Your task to perform on an android device: turn off improve location accuracy Image 0: 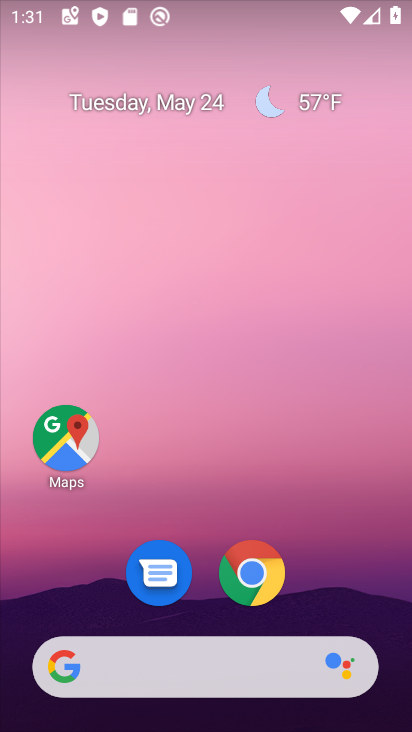
Step 0: drag from (387, 563) to (331, 278)
Your task to perform on an android device: turn off improve location accuracy Image 1: 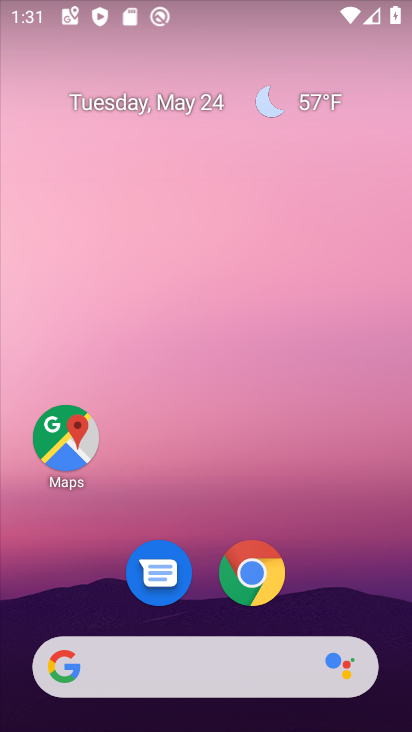
Step 1: drag from (351, 612) to (336, 225)
Your task to perform on an android device: turn off improve location accuracy Image 2: 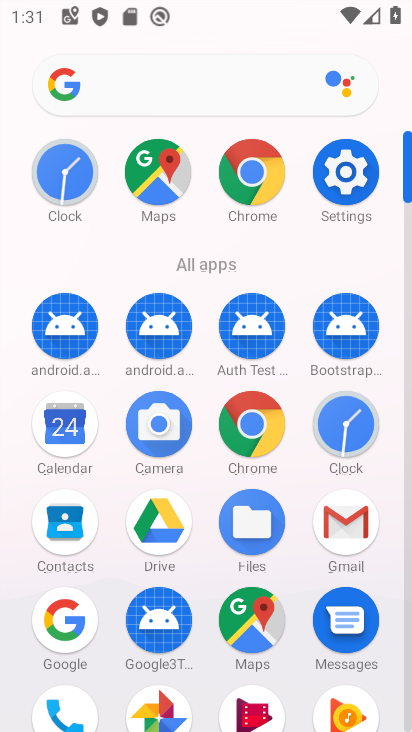
Step 2: click (359, 196)
Your task to perform on an android device: turn off improve location accuracy Image 3: 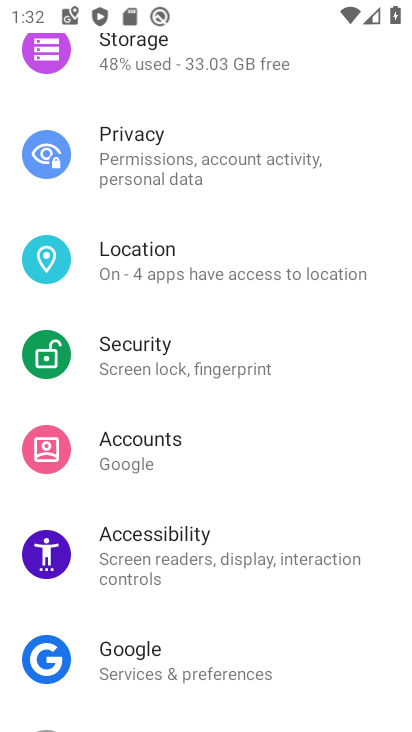
Step 3: drag from (182, 183) to (191, 357)
Your task to perform on an android device: turn off improve location accuracy Image 4: 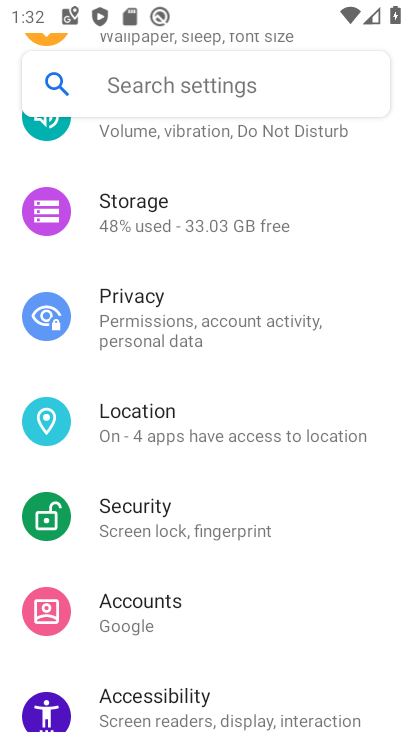
Step 4: click (199, 410)
Your task to perform on an android device: turn off improve location accuracy Image 5: 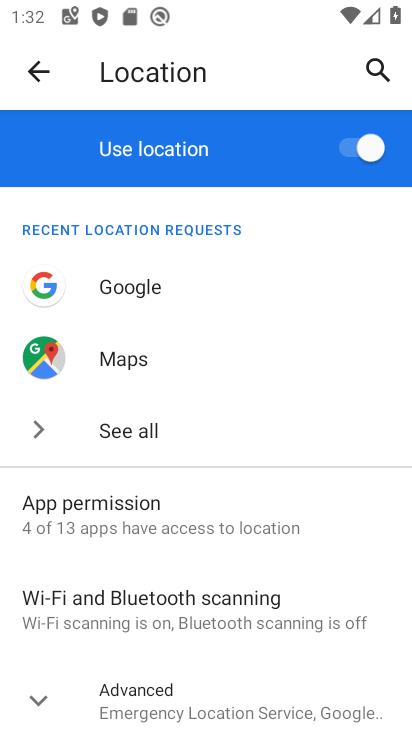
Step 5: click (199, 410)
Your task to perform on an android device: turn off improve location accuracy Image 6: 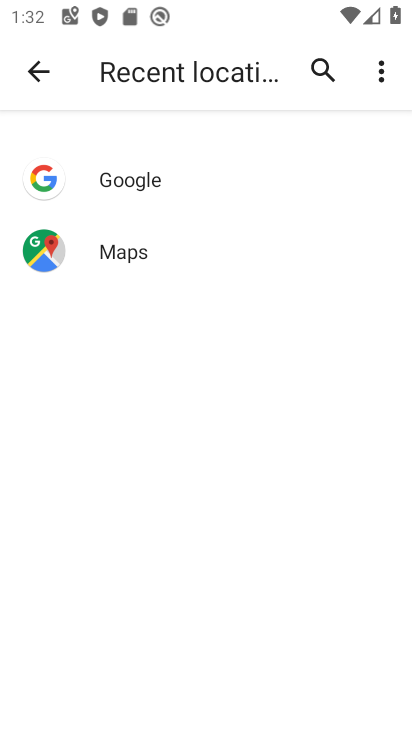
Step 6: click (43, 73)
Your task to perform on an android device: turn off improve location accuracy Image 7: 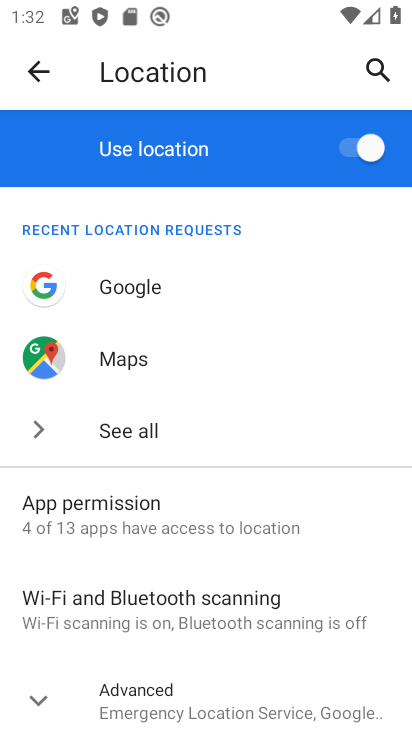
Step 7: click (186, 693)
Your task to perform on an android device: turn off improve location accuracy Image 8: 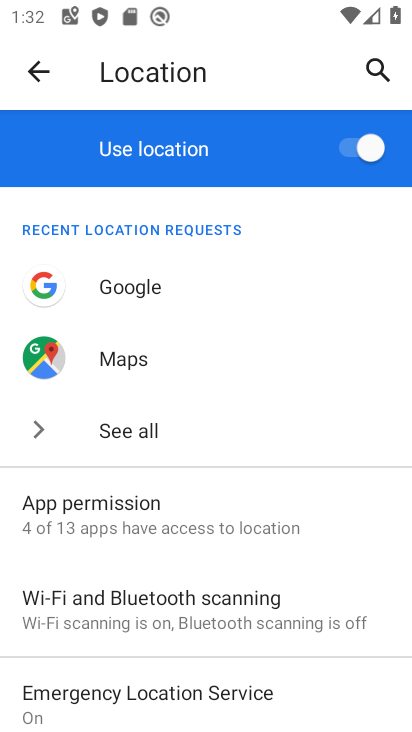
Step 8: drag from (240, 643) to (240, 422)
Your task to perform on an android device: turn off improve location accuracy Image 9: 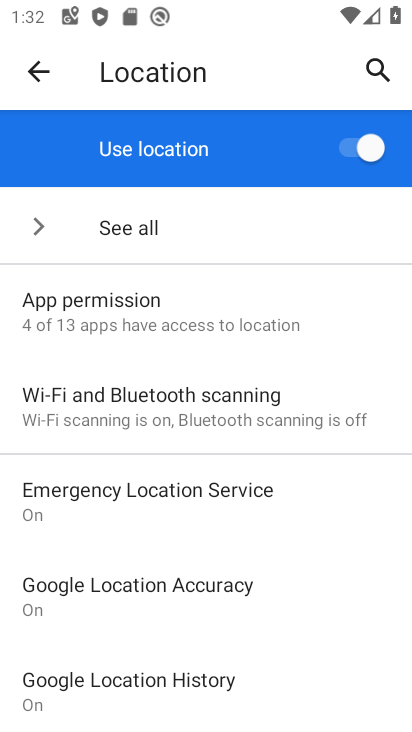
Step 9: click (198, 591)
Your task to perform on an android device: turn off improve location accuracy Image 10: 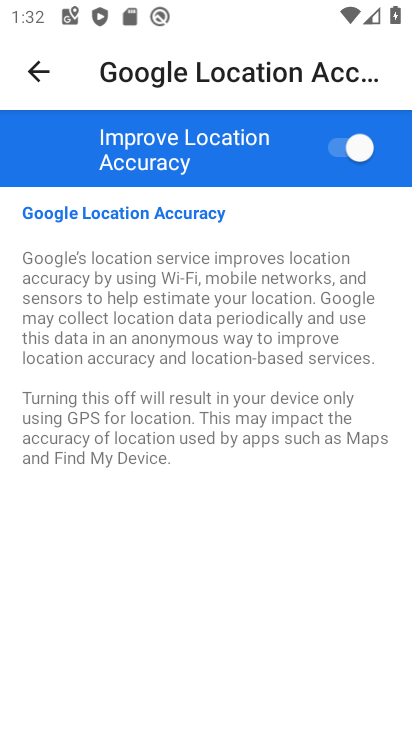
Step 10: click (198, 591)
Your task to perform on an android device: turn off improve location accuracy Image 11: 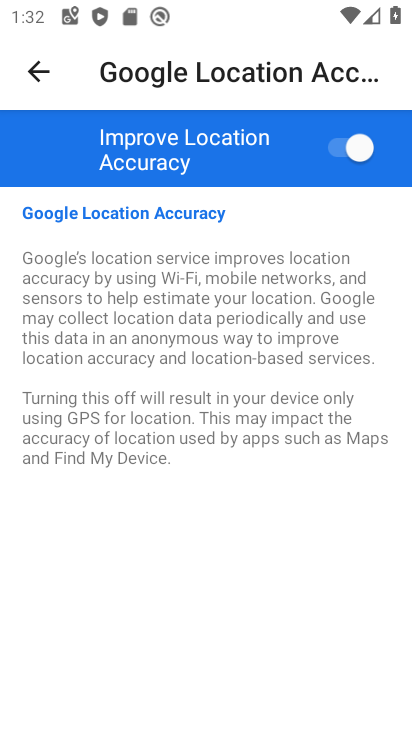
Step 11: click (357, 143)
Your task to perform on an android device: turn off improve location accuracy Image 12: 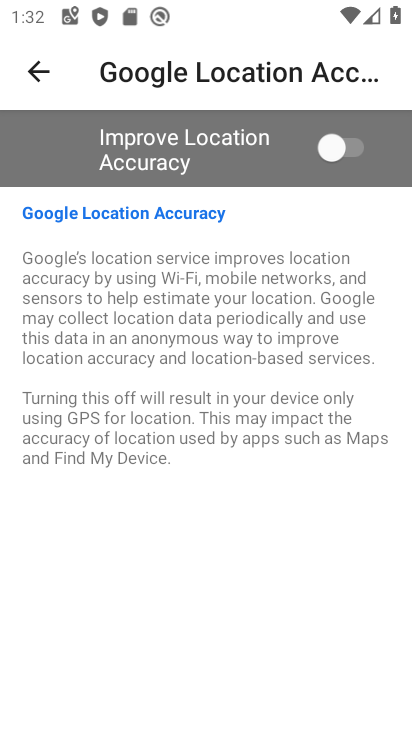
Step 12: task complete